Your task to perform on an android device: move a message to another label in the gmail app Image 0: 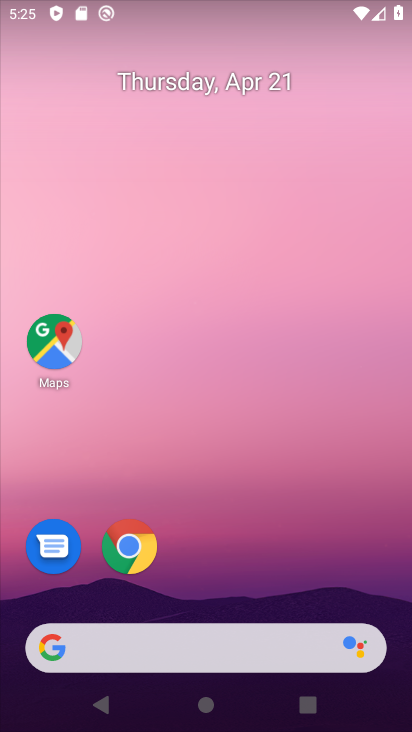
Step 0: drag from (304, 454) to (264, 44)
Your task to perform on an android device: move a message to another label in the gmail app Image 1: 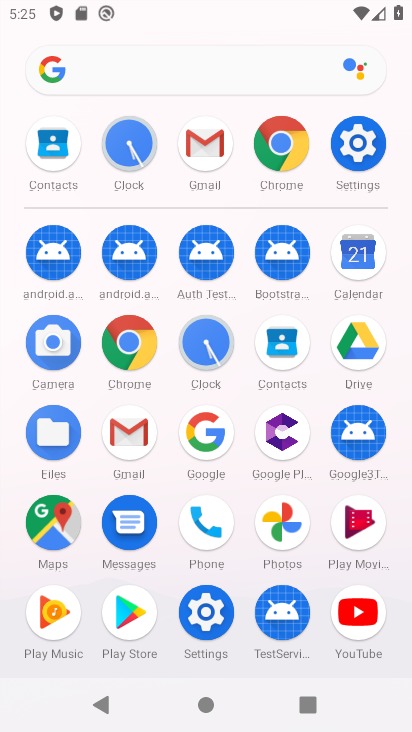
Step 1: click (196, 145)
Your task to perform on an android device: move a message to another label in the gmail app Image 2: 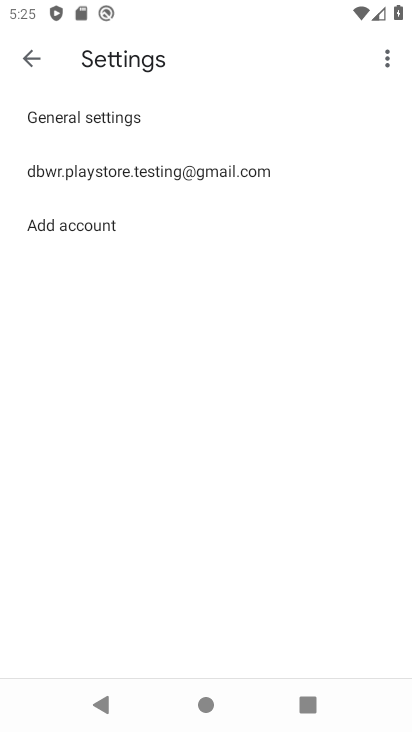
Step 2: click (29, 56)
Your task to perform on an android device: move a message to another label in the gmail app Image 3: 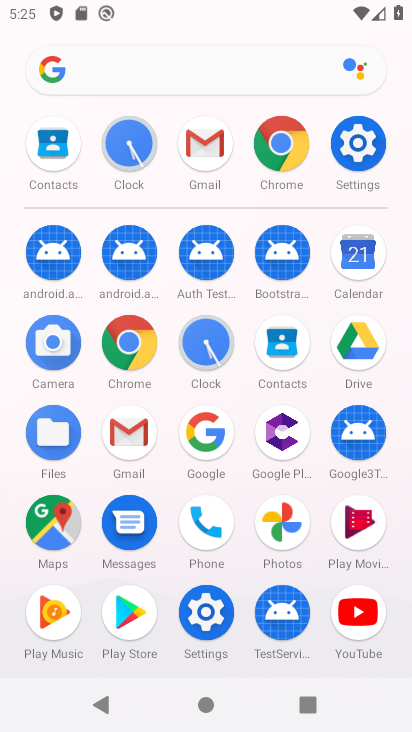
Step 3: click (130, 440)
Your task to perform on an android device: move a message to another label in the gmail app Image 4: 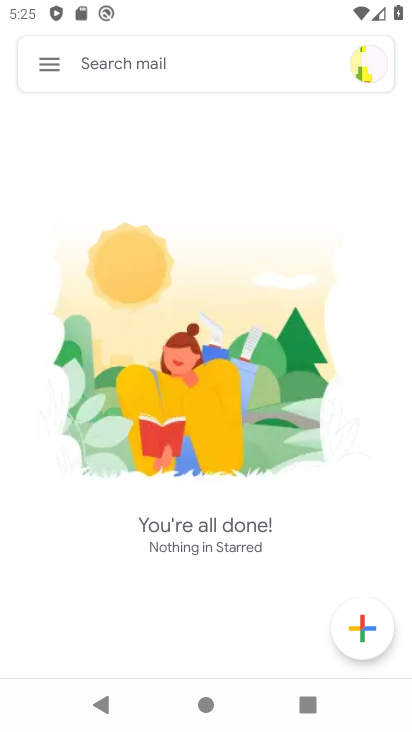
Step 4: click (45, 67)
Your task to perform on an android device: move a message to another label in the gmail app Image 5: 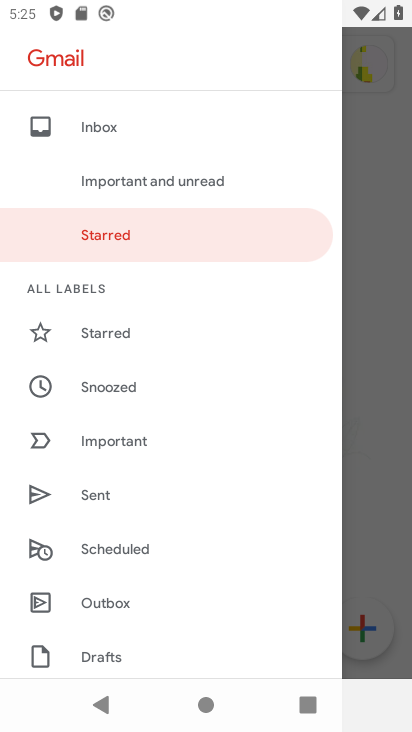
Step 5: drag from (100, 598) to (118, 231)
Your task to perform on an android device: move a message to another label in the gmail app Image 6: 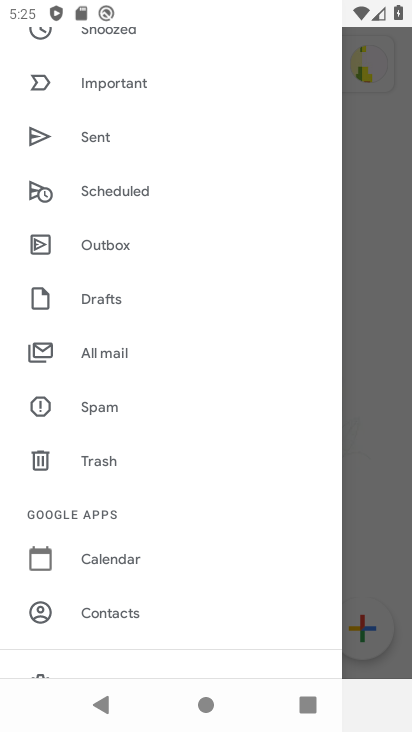
Step 6: click (103, 350)
Your task to perform on an android device: move a message to another label in the gmail app Image 7: 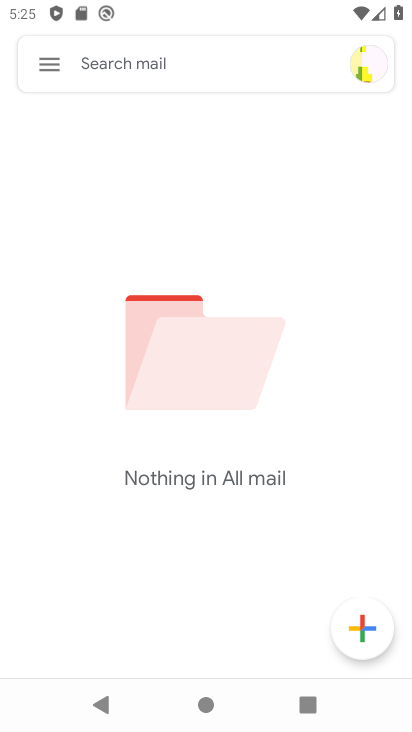
Step 7: task complete